Your task to perform on an android device: turn on sleep mode Image 0: 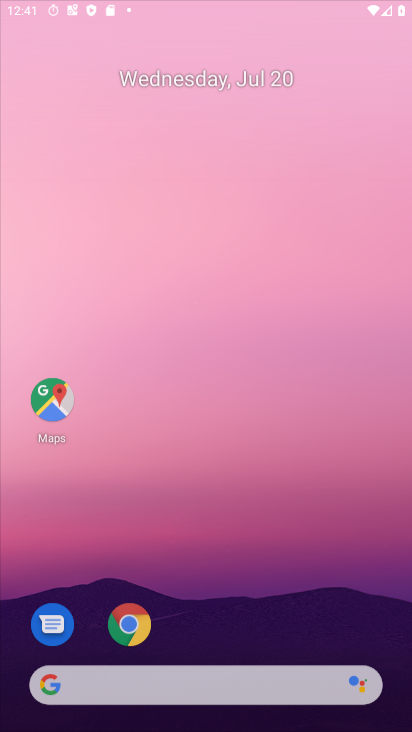
Step 0: press home button
Your task to perform on an android device: turn on sleep mode Image 1: 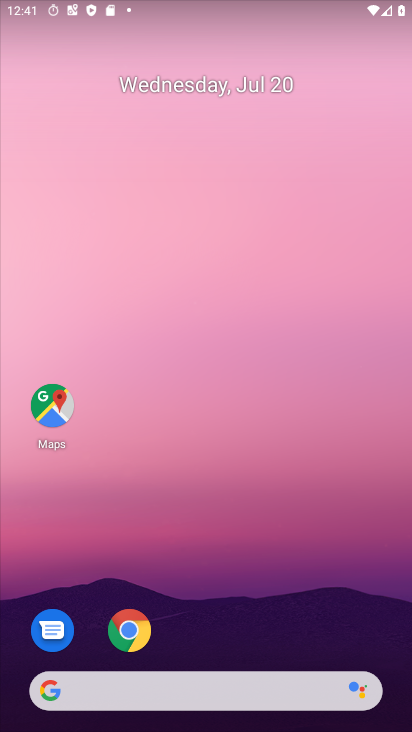
Step 1: drag from (294, 603) to (315, 100)
Your task to perform on an android device: turn on sleep mode Image 2: 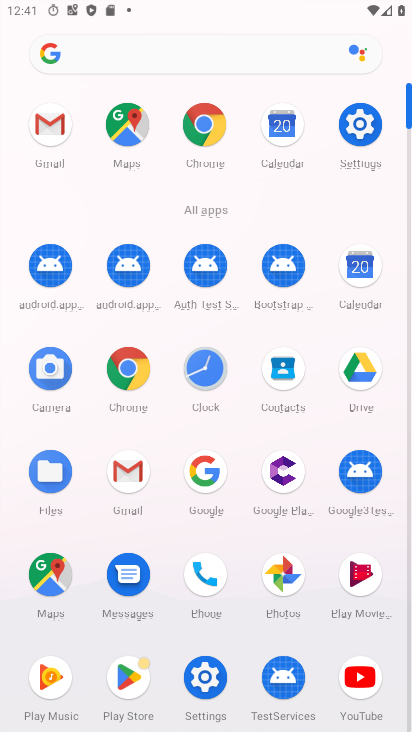
Step 2: click (366, 128)
Your task to perform on an android device: turn on sleep mode Image 3: 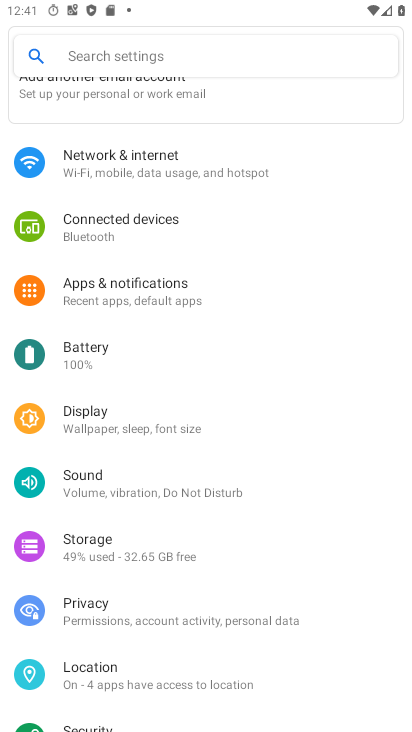
Step 3: click (158, 415)
Your task to perform on an android device: turn on sleep mode Image 4: 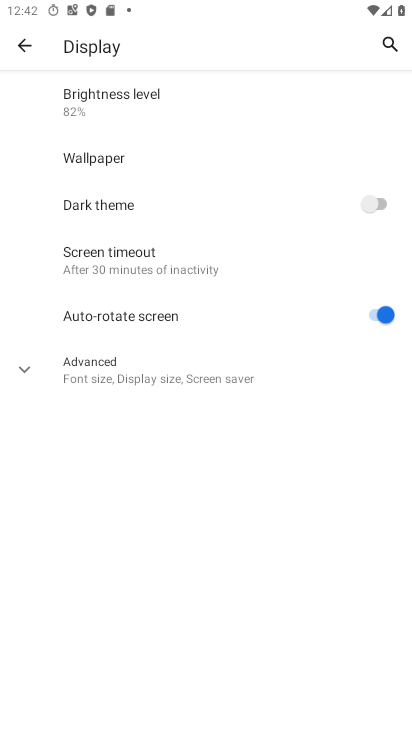
Step 4: click (95, 355)
Your task to perform on an android device: turn on sleep mode Image 5: 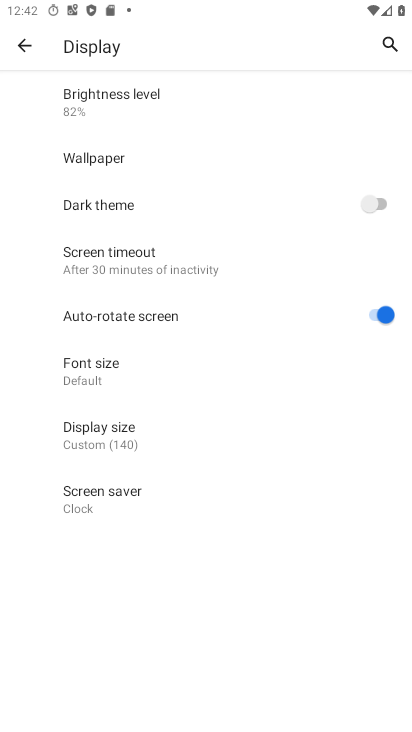
Step 5: task complete